Your task to perform on an android device: toggle notification dots Image 0: 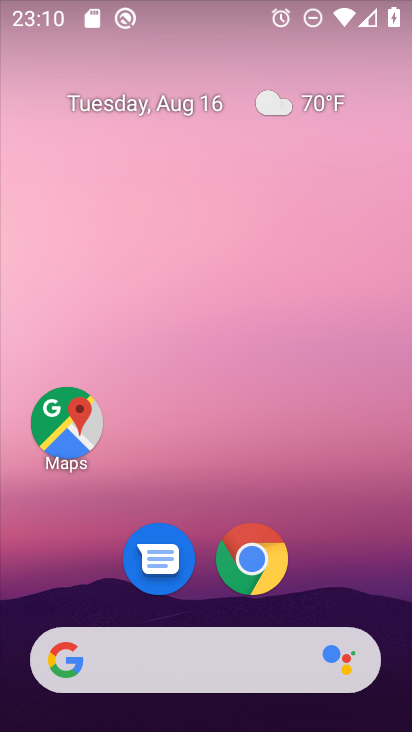
Step 0: drag from (190, 641) to (282, 87)
Your task to perform on an android device: toggle notification dots Image 1: 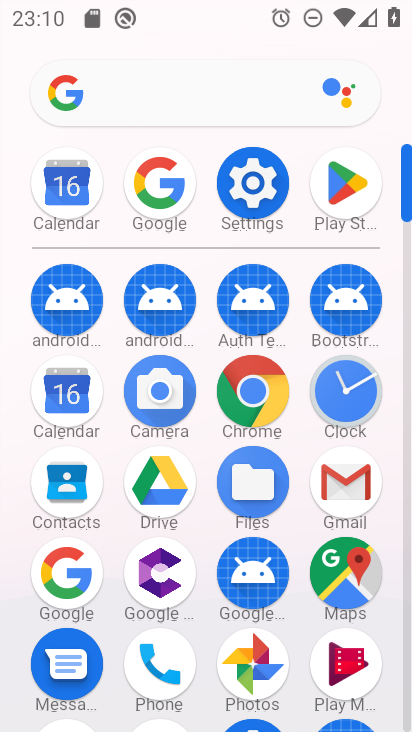
Step 1: click (251, 183)
Your task to perform on an android device: toggle notification dots Image 2: 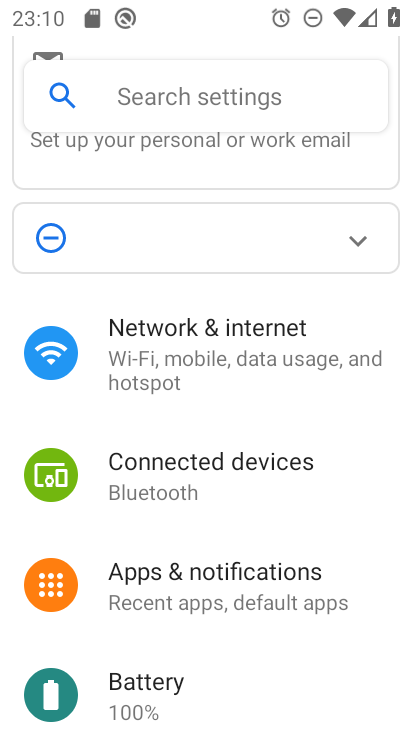
Step 2: drag from (234, 669) to (293, 538)
Your task to perform on an android device: toggle notification dots Image 3: 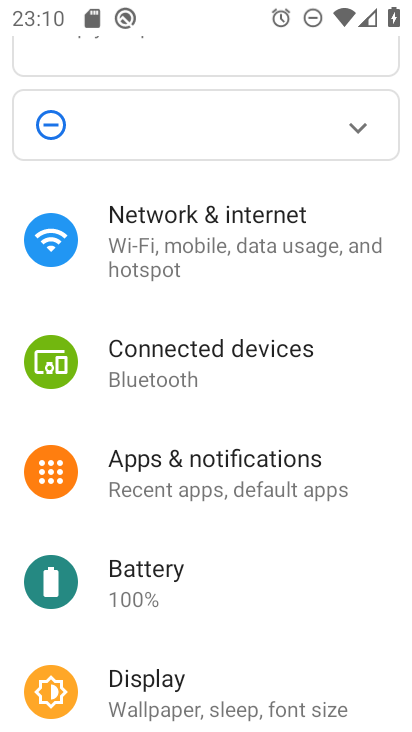
Step 3: click (290, 472)
Your task to perform on an android device: toggle notification dots Image 4: 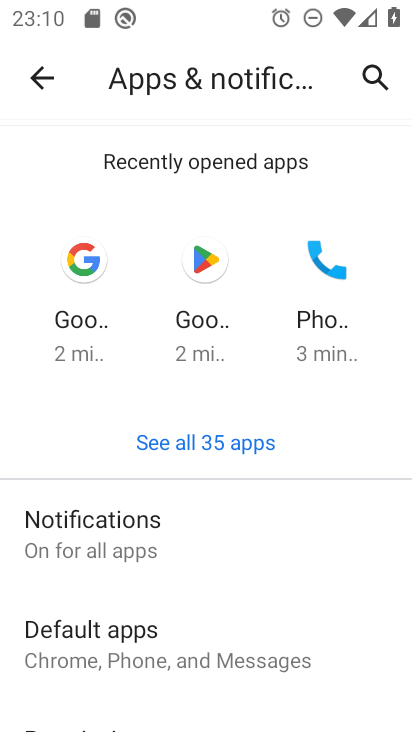
Step 4: click (120, 523)
Your task to perform on an android device: toggle notification dots Image 5: 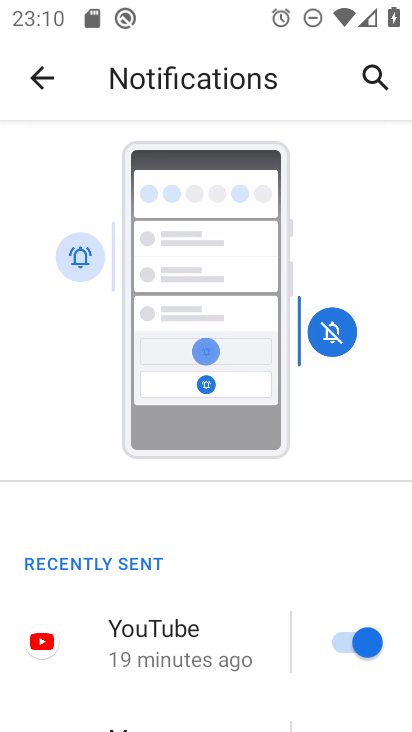
Step 5: drag from (205, 595) to (288, 465)
Your task to perform on an android device: toggle notification dots Image 6: 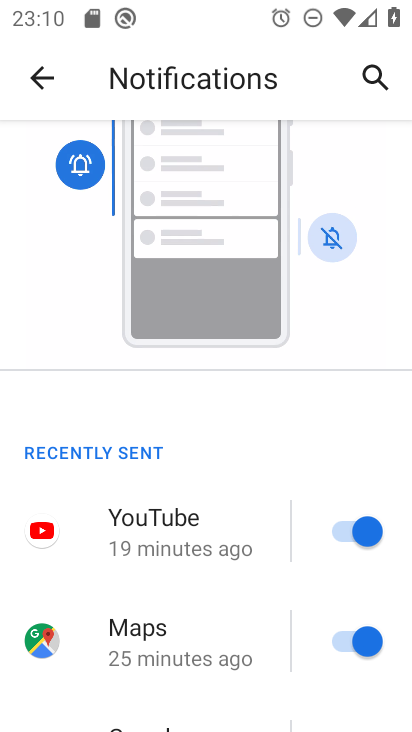
Step 6: drag from (209, 614) to (249, 456)
Your task to perform on an android device: toggle notification dots Image 7: 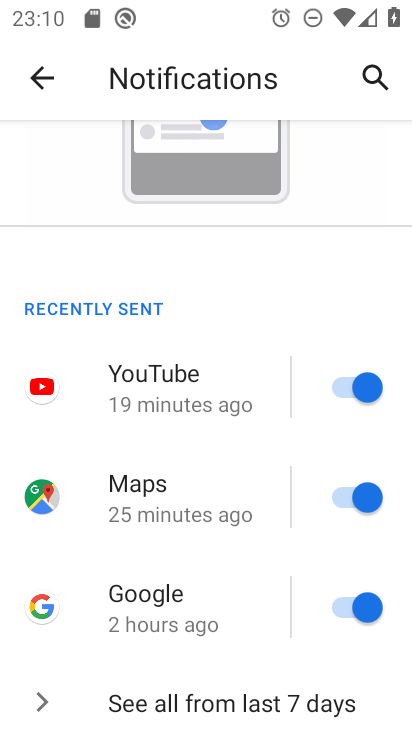
Step 7: drag from (178, 627) to (255, 467)
Your task to perform on an android device: toggle notification dots Image 8: 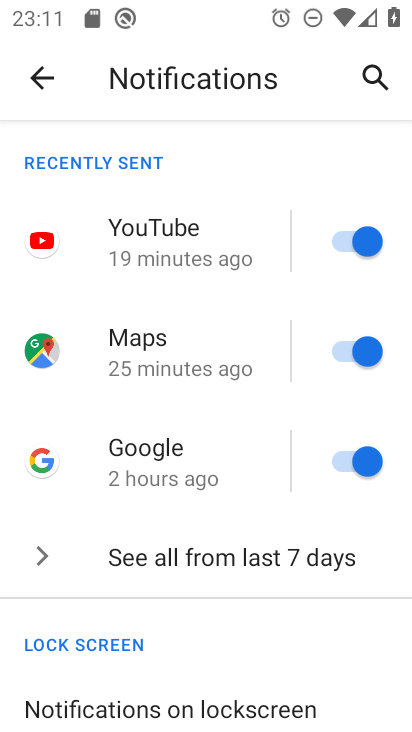
Step 8: drag from (193, 698) to (234, 577)
Your task to perform on an android device: toggle notification dots Image 9: 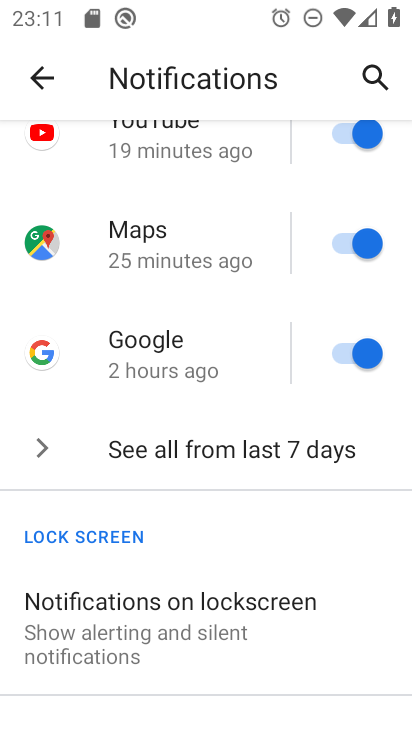
Step 9: drag from (166, 659) to (224, 518)
Your task to perform on an android device: toggle notification dots Image 10: 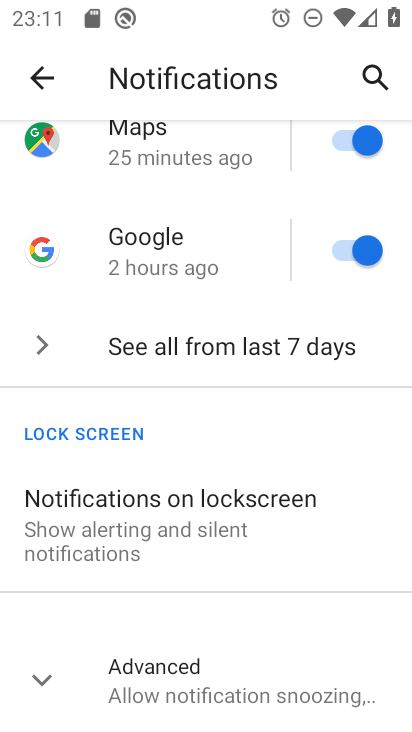
Step 10: click (223, 696)
Your task to perform on an android device: toggle notification dots Image 11: 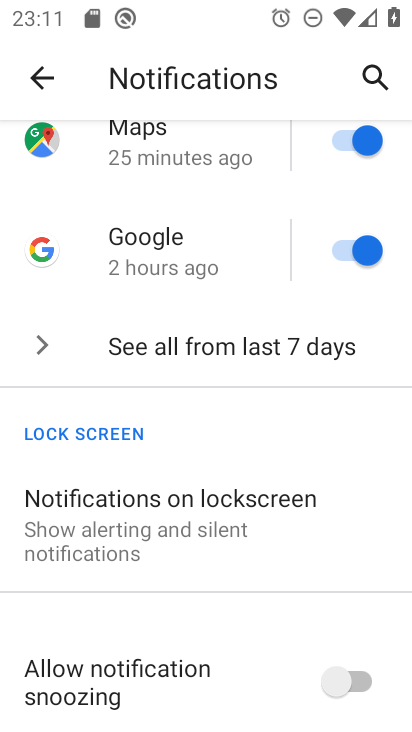
Step 11: drag from (180, 603) to (264, 503)
Your task to perform on an android device: toggle notification dots Image 12: 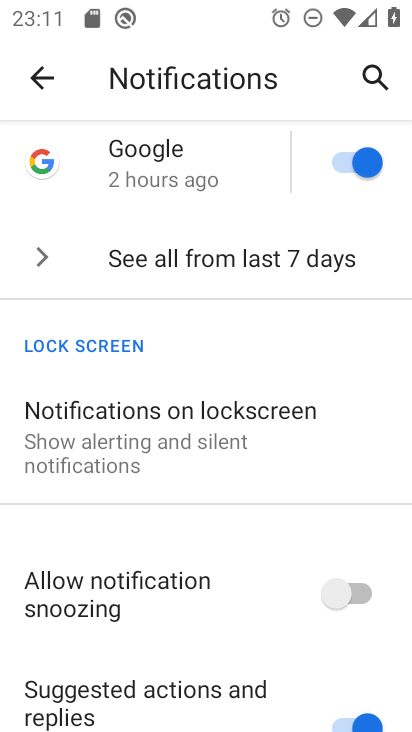
Step 12: drag from (179, 650) to (323, 379)
Your task to perform on an android device: toggle notification dots Image 13: 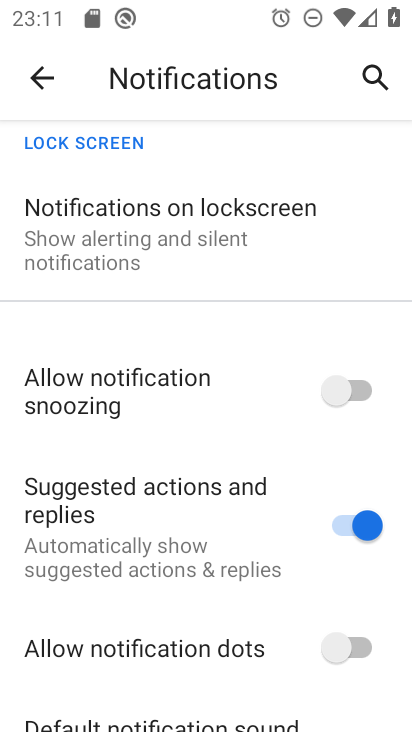
Step 13: click (349, 652)
Your task to perform on an android device: toggle notification dots Image 14: 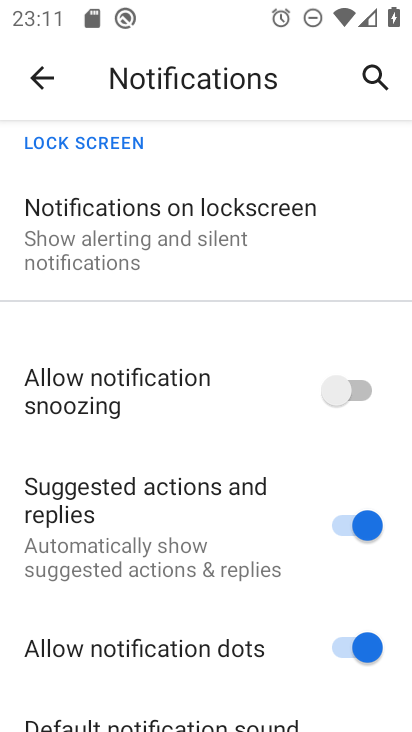
Step 14: task complete